Your task to perform on an android device: Search for vegetarian restaurants on Maps Image 0: 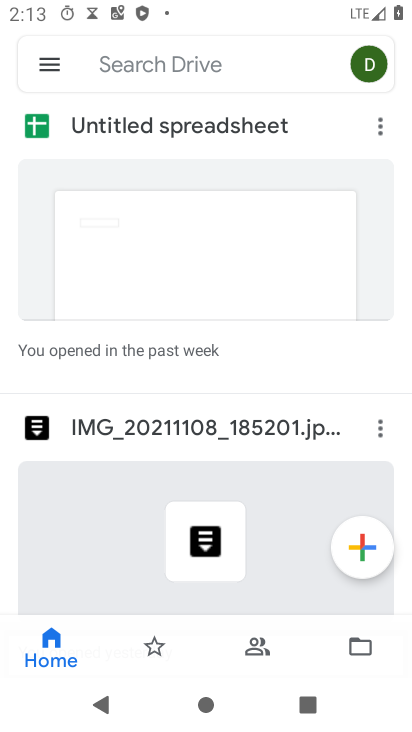
Step 0: press home button
Your task to perform on an android device: Search for vegetarian restaurants on Maps Image 1: 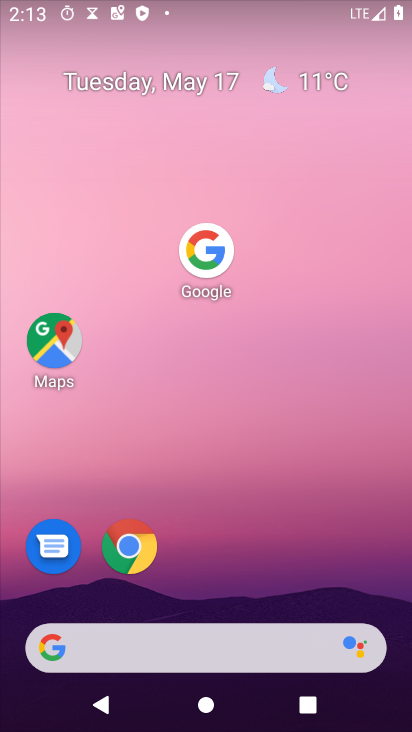
Step 1: click (63, 355)
Your task to perform on an android device: Search for vegetarian restaurants on Maps Image 2: 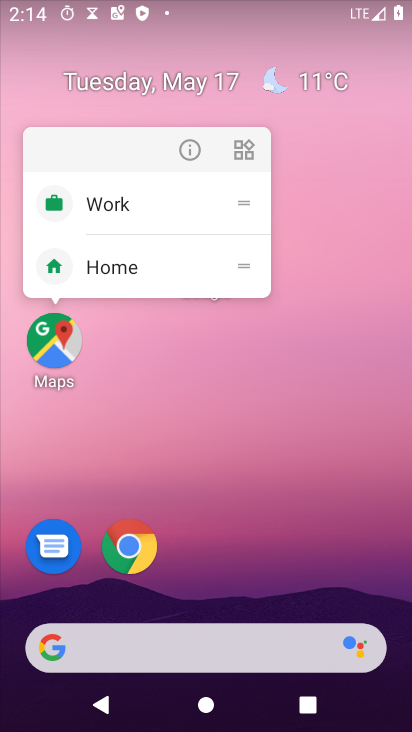
Step 2: click (68, 354)
Your task to perform on an android device: Search for vegetarian restaurants on Maps Image 3: 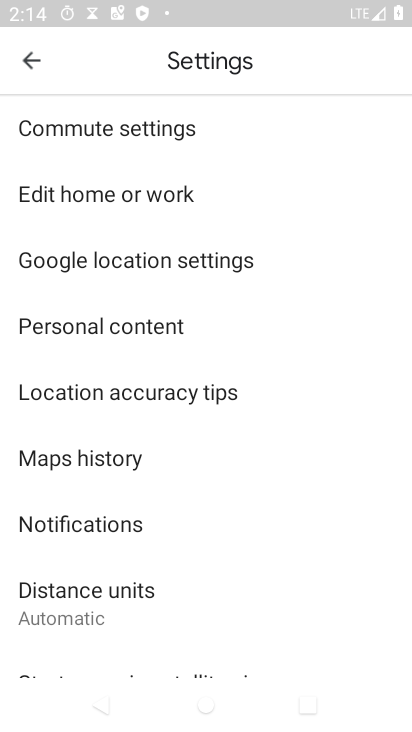
Step 3: click (36, 60)
Your task to perform on an android device: Search for vegetarian restaurants on Maps Image 4: 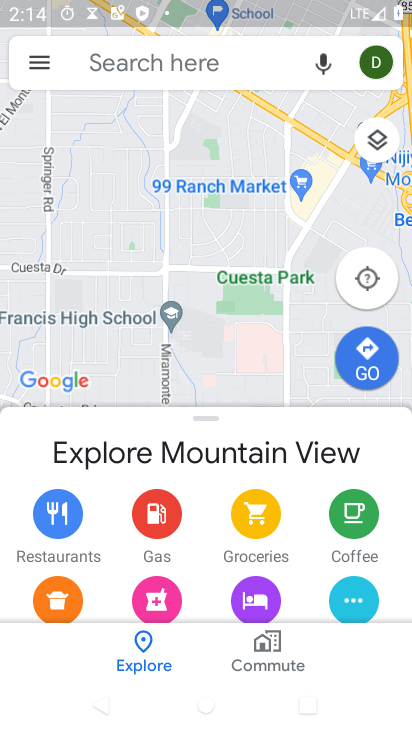
Step 4: click (190, 55)
Your task to perform on an android device: Search for vegetarian restaurants on Maps Image 5: 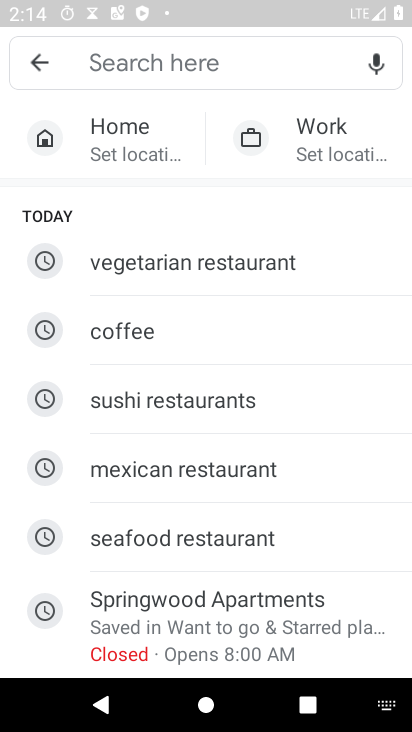
Step 5: click (218, 261)
Your task to perform on an android device: Search for vegetarian restaurants on Maps Image 6: 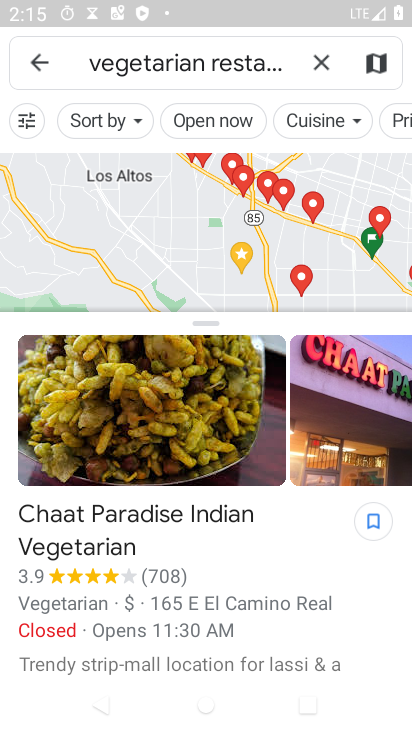
Step 6: task complete